Your task to perform on an android device: Check the news Image 0: 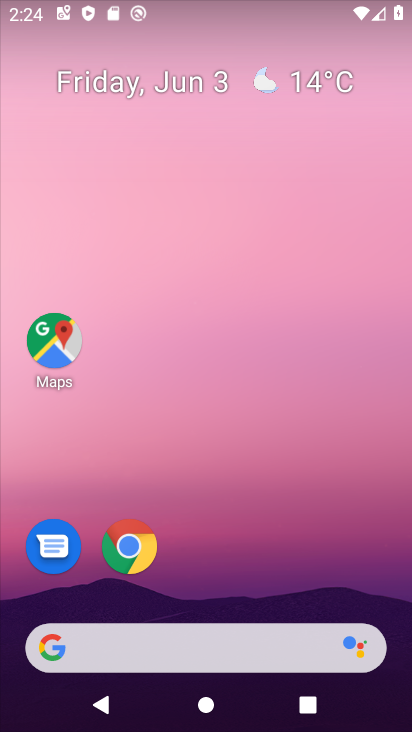
Step 0: drag from (280, 533) to (278, 42)
Your task to perform on an android device: Check the news Image 1: 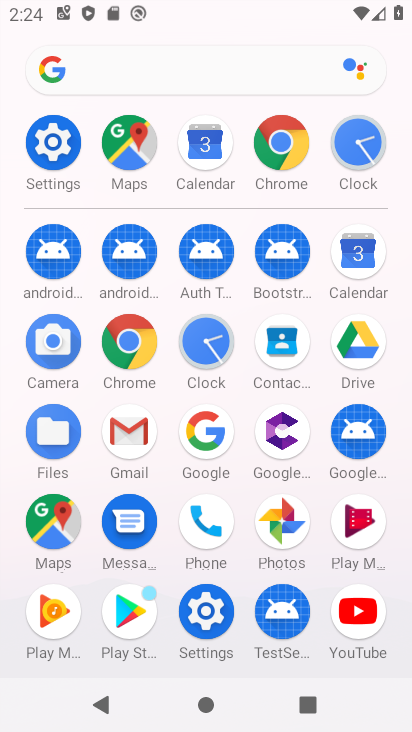
Step 1: click (302, 163)
Your task to perform on an android device: Check the news Image 2: 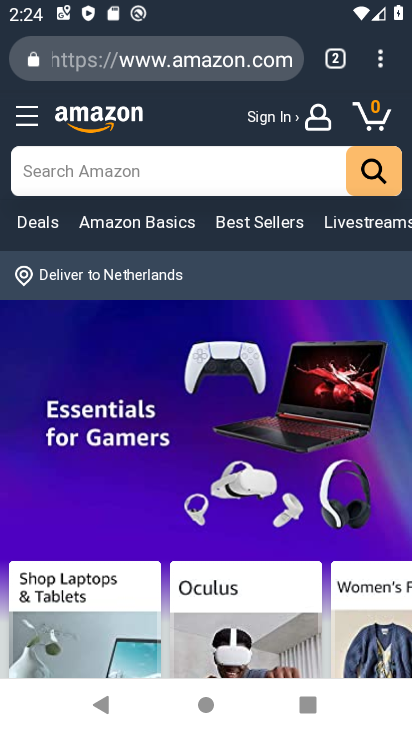
Step 2: task complete